Your task to perform on an android device: change your default location settings in chrome Image 0: 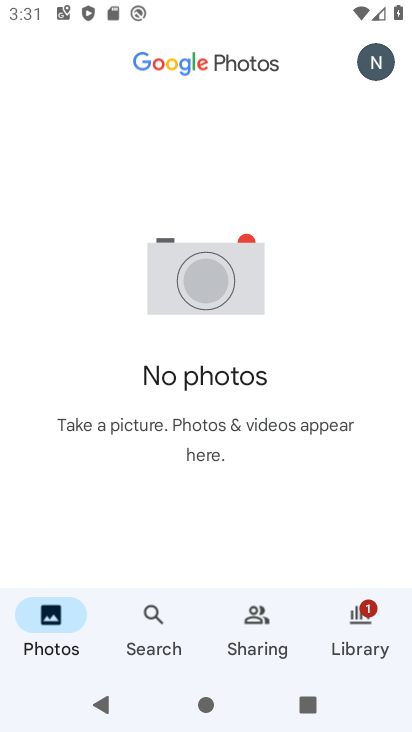
Step 0: press home button
Your task to perform on an android device: change your default location settings in chrome Image 1: 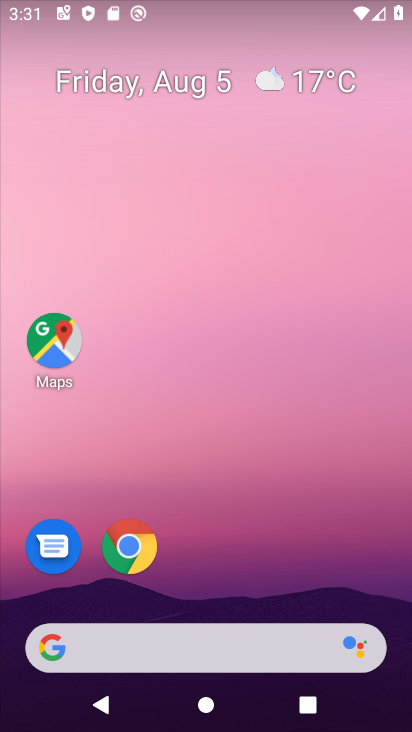
Step 1: drag from (307, 555) to (299, 154)
Your task to perform on an android device: change your default location settings in chrome Image 2: 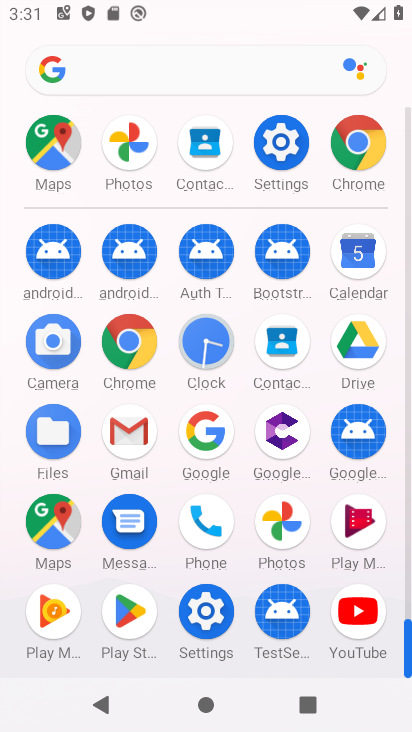
Step 2: click (138, 339)
Your task to perform on an android device: change your default location settings in chrome Image 3: 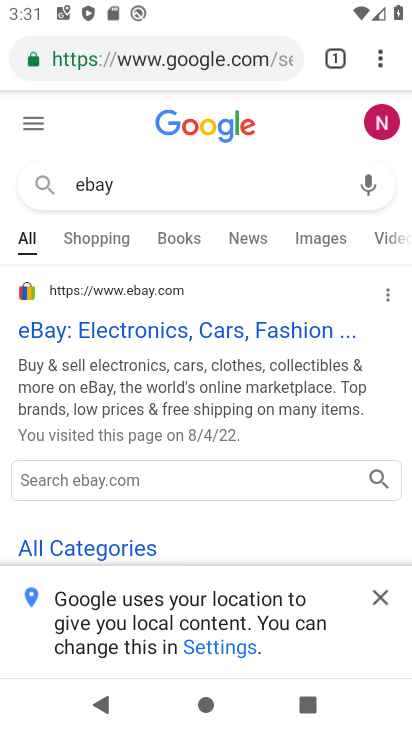
Step 3: click (380, 59)
Your task to perform on an android device: change your default location settings in chrome Image 4: 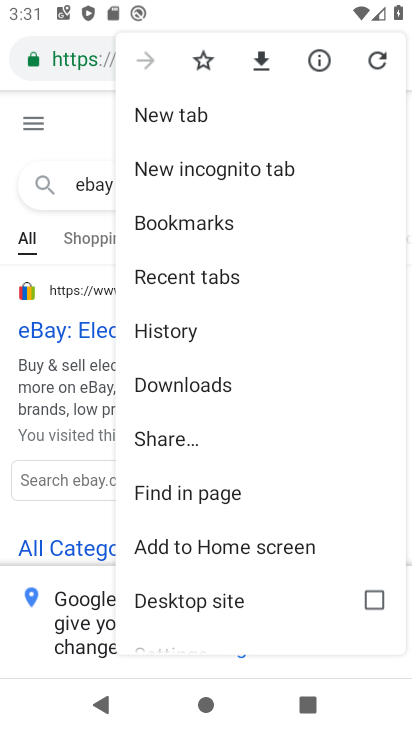
Step 4: drag from (327, 432) to (310, 274)
Your task to perform on an android device: change your default location settings in chrome Image 5: 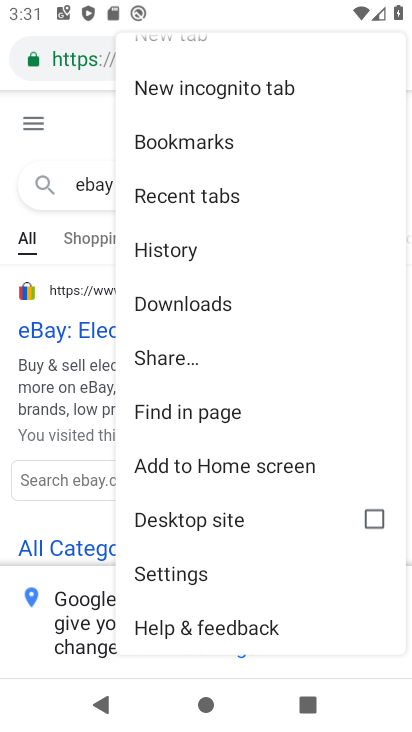
Step 5: click (201, 573)
Your task to perform on an android device: change your default location settings in chrome Image 6: 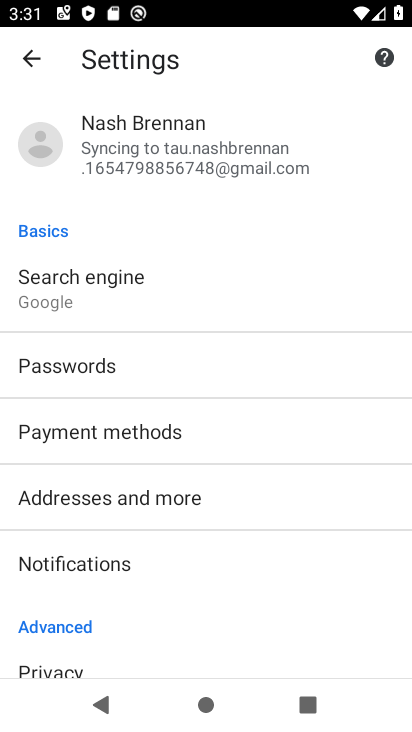
Step 6: drag from (247, 582) to (262, 500)
Your task to perform on an android device: change your default location settings in chrome Image 7: 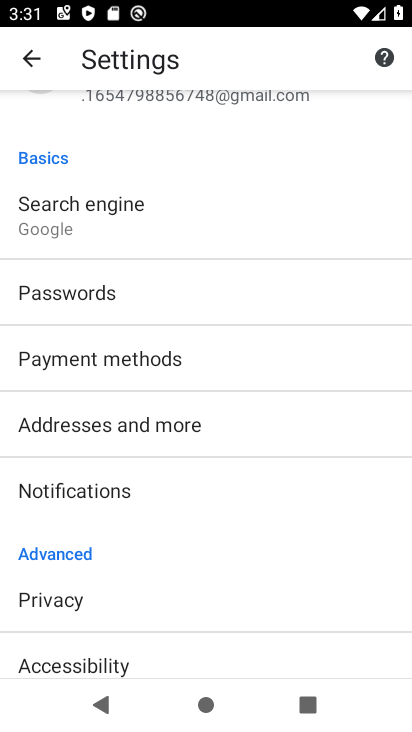
Step 7: drag from (296, 496) to (293, 413)
Your task to perform on an android device: change your default location settings in chrome Image 8: 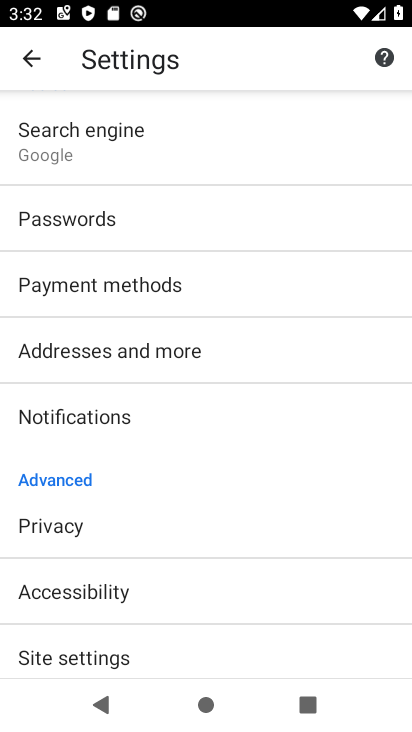
Step 8: drag from (304, 514) to (306, 403)
Your task to perform on an android device: change your default location settings in chrome Image 9: 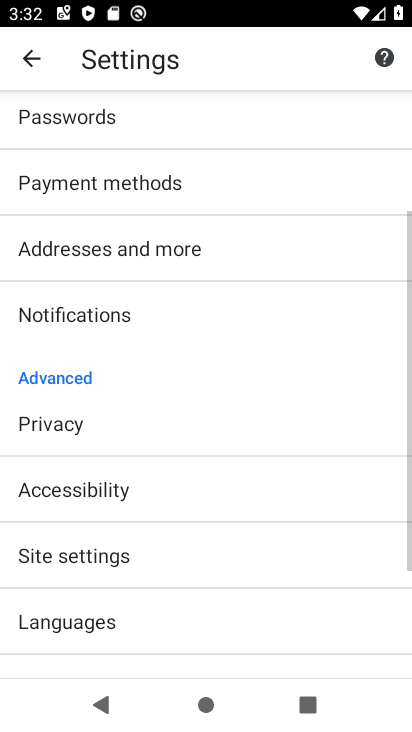
Step 9: drag from (307, 515) to (309, 392)
Your task to perform on an android device: change your default location settings in chrome Image 10: 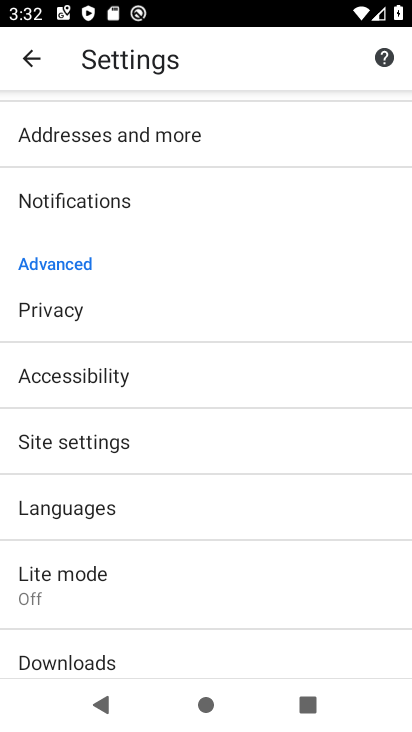
Step 10: drag from (308, 505) to (311, 408)
Your task to perform on an android device: change your default location settings in chrome Image 11: 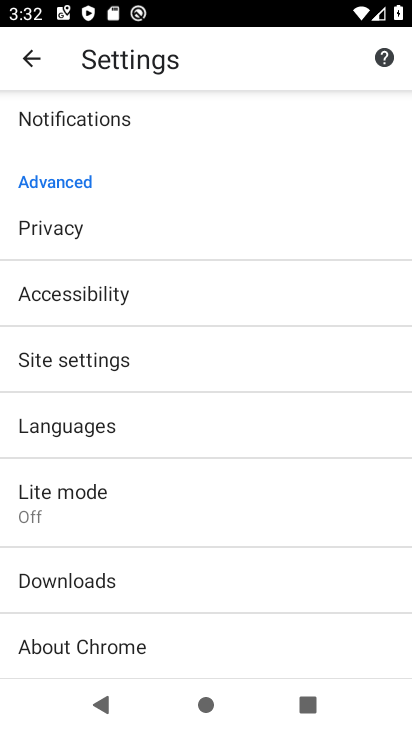
Step 11: click (224, 360)
Your task to perform on an android device: change your default location settings in chrome Image 12: 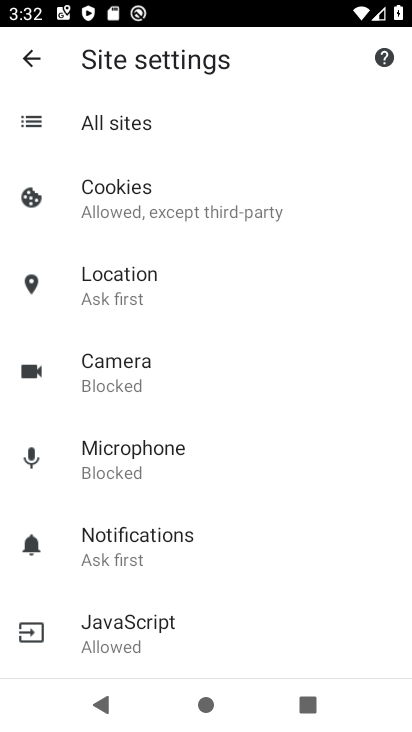
Step 12: click (172, 274)
Your task to perform on an android device: change your default location settings in chrome Image 13: 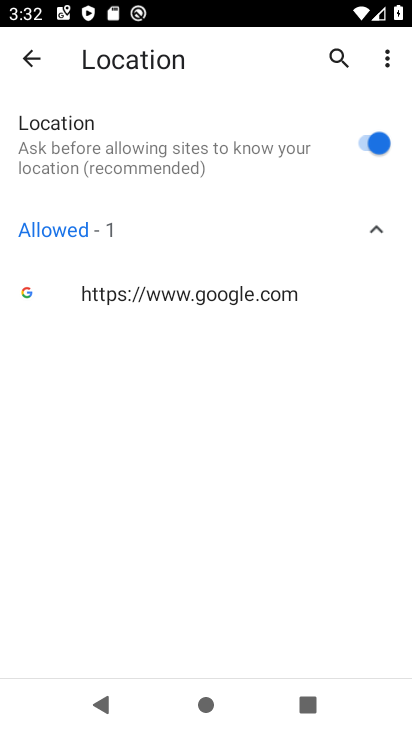
Step 13: click (378, 149)
Your task to perform on an android device: change your default location settings in chrome Image 14: 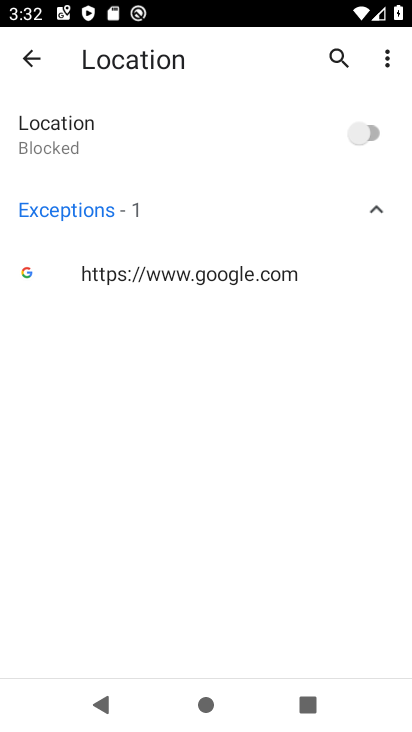
Step 14: task complete